Your task to perform on an android device: turn on showing notifications on the lock screen Image 0: 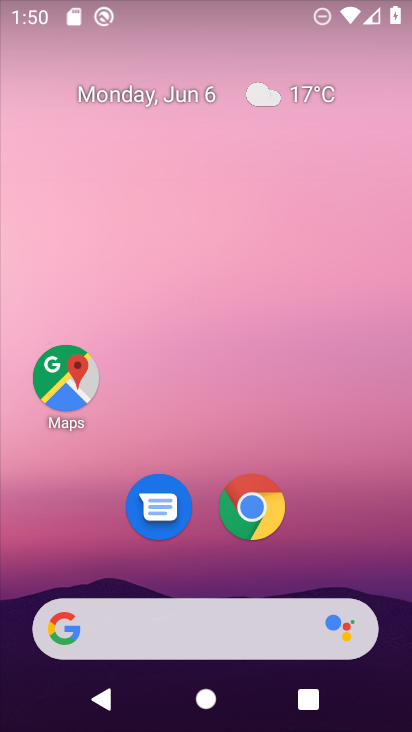
Step 0: drag from (230, 658) to (165, 164)
Your task to perform on an android device: turn on showing notifications on the lock screen Image 1: 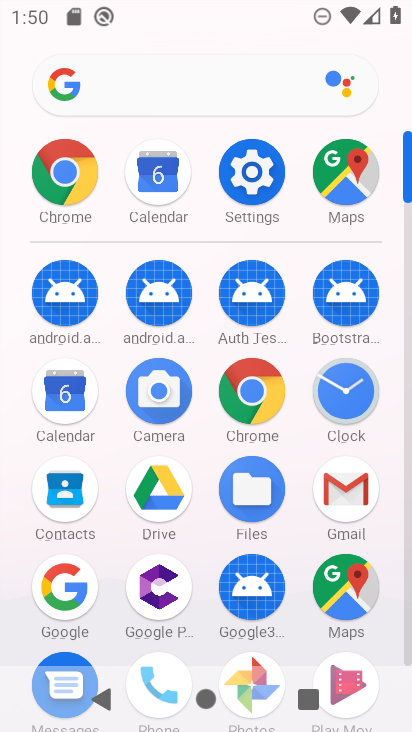
Step 1: click (243, 169)
Your task to perform on an android device: turn on showing notifications on the lock screen Image 2: 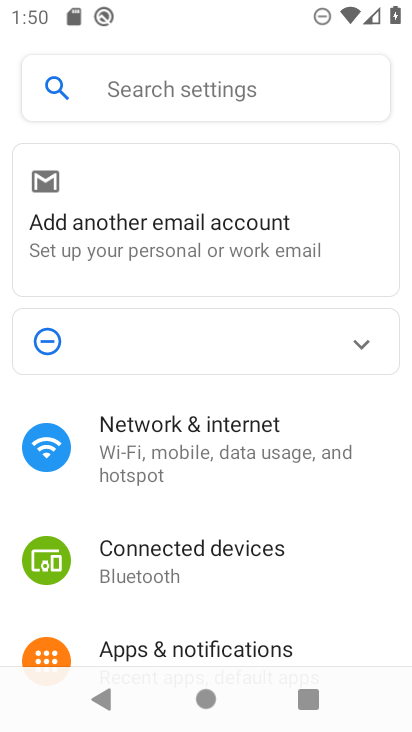
Step 2: click (128, 95)
Your task to perform on an android device: turn on showing notifications on the lock screen Image 3: 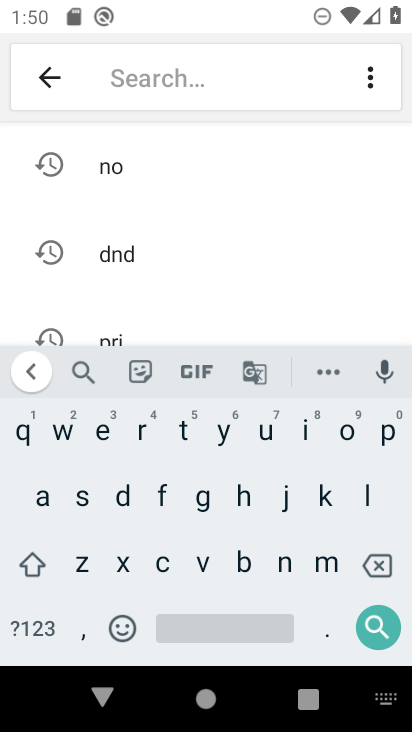
Step 3: click (140, 172)
Your task to perform on an android device: turn on showing notifications on the lock screen Image 4: 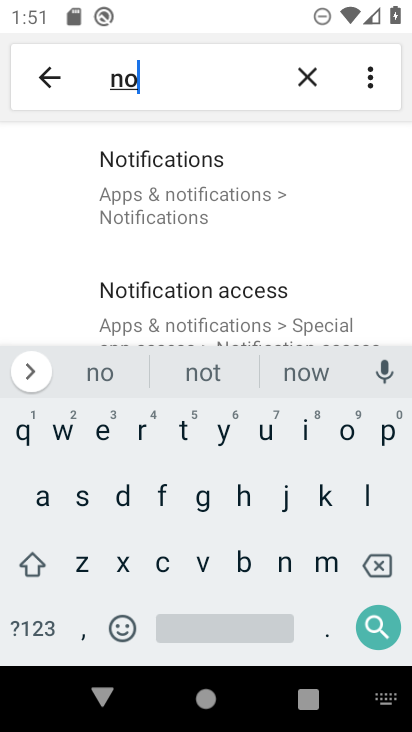
Step 4: click (152, 181)
Your task to perform on an android device: turn on showing notifications on the lock screen Image 5: 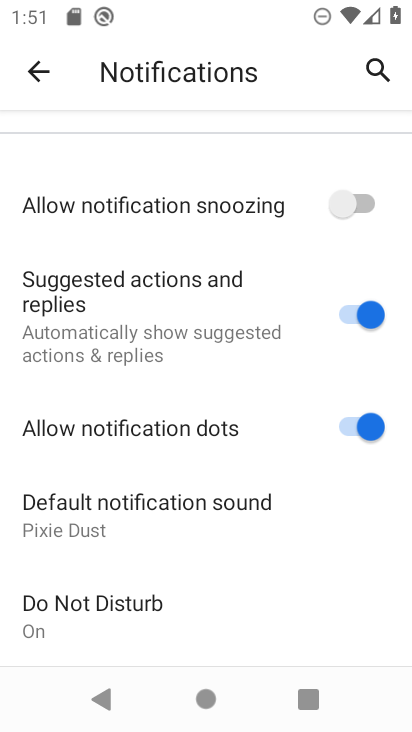
Step 5: drag from (130, 317) to (206, 508)
Your task to perform on an android device: turn on showing notifications on the lock screen Image 6: 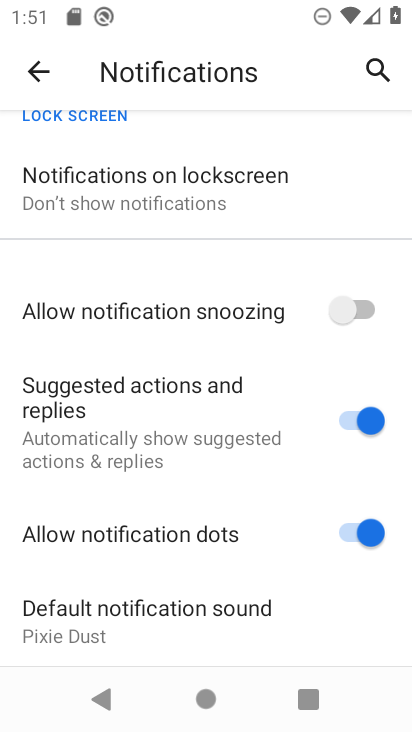
Step 6: click (127, 185)
Your task to perform on an android device: turn on showing notifications on the lock screen Image 7: 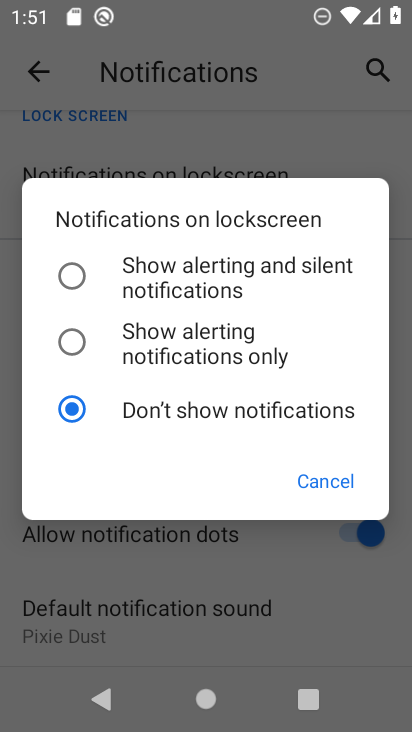
Step 7: click (105, 262)
Your task to perform on an android device: turn on showing notifications on the lock screen Image 8: 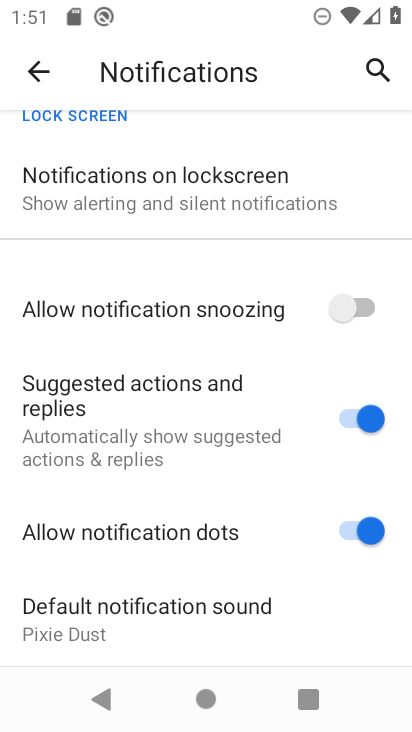
Step 8: task complete